Your task to perform on an android device: What is the recent news? Image 0: 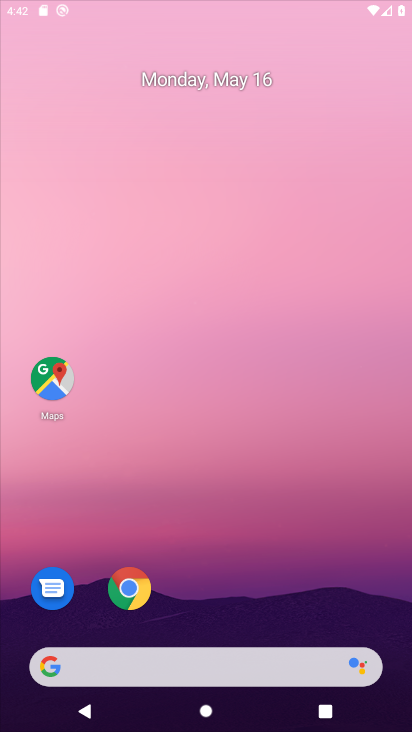
Step 0: click (243, 169)
Your task to perform on an android device: What is the recent news? Image 1: 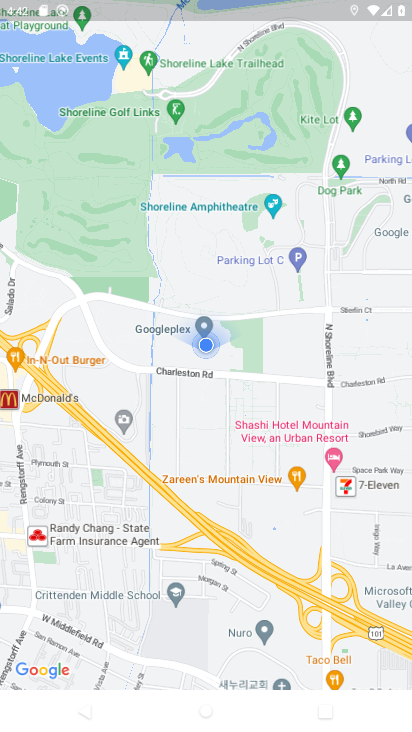
Step 1: press home button
Your task to perform on an android device: What is the recent news? Image 2: 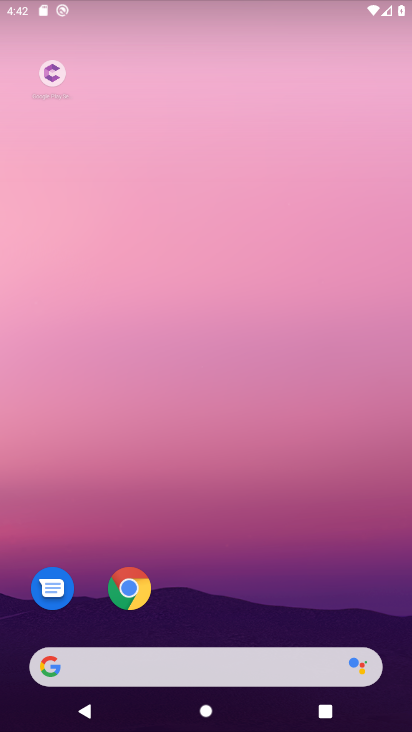
Step 2: drag from (261, 445) to (185, 115)
Your task to perform on an android device: What is the recent news? Image 3: 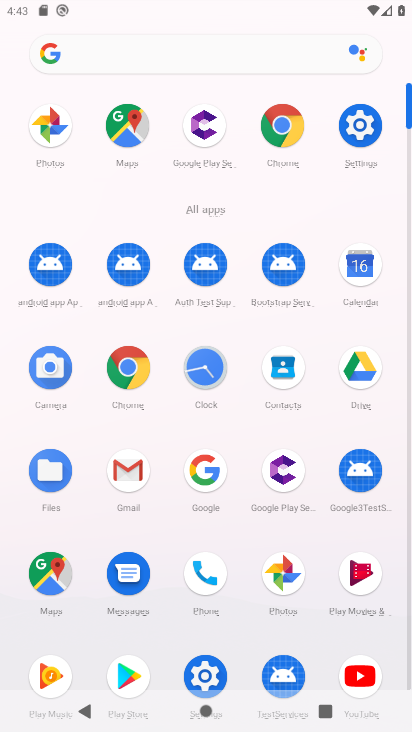
Step 3: click (207, 478)
Your task to perform on an android device: What is the recent news? Image 4: 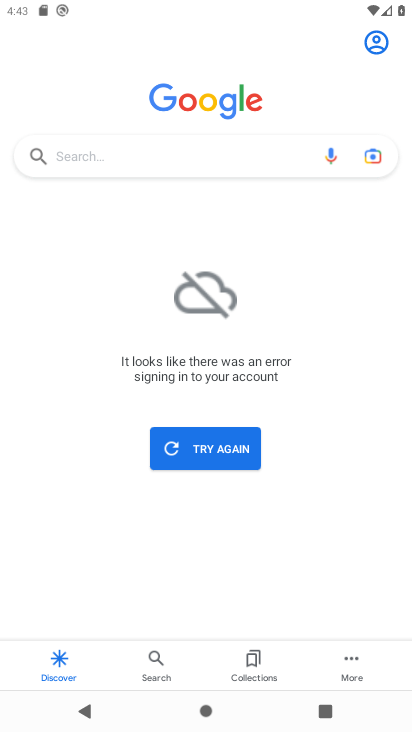
Step 4: click (229, 447)
Your task to perform on an android device: What is the recent news? Image 5: 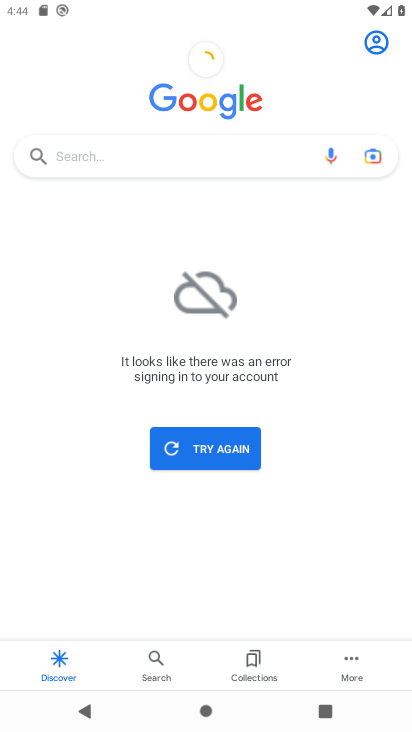
Step 5: task complete